Your task to perform on an android device: What is the recent news? Image 0: 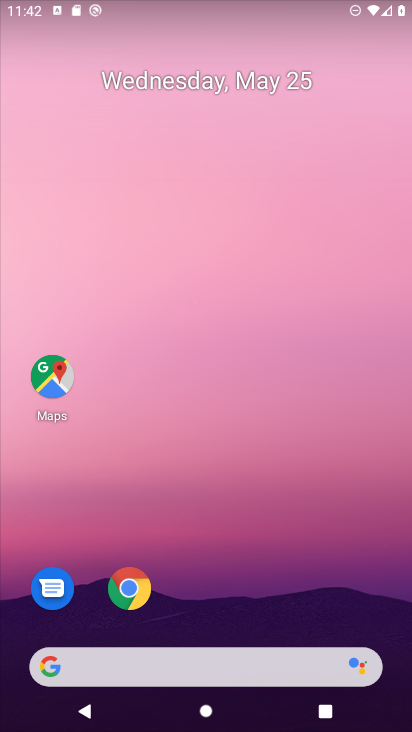
Step 0: press home button
Your task to perform on an android device: What is the recent news? Image 1: 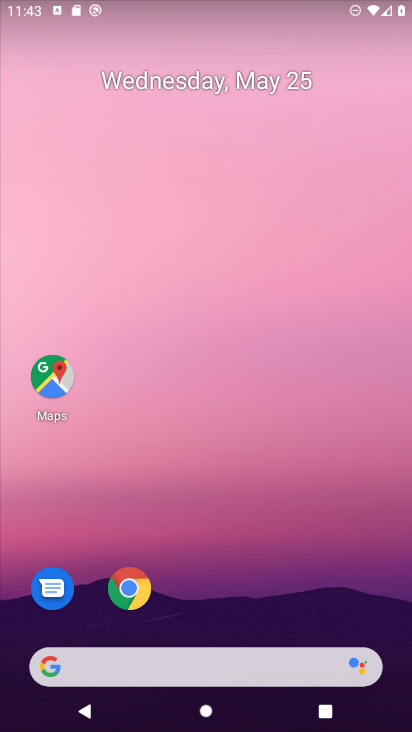
Step 1: click (187, 676)
Your task to perform on an android device: What is the recent news? Image 2: 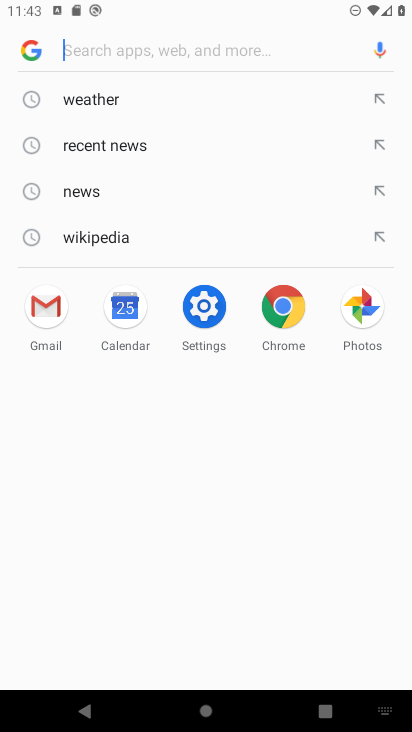
Step 2: click (130, 189)
Your task to perform on an android device: What is the recent news? Image 3: 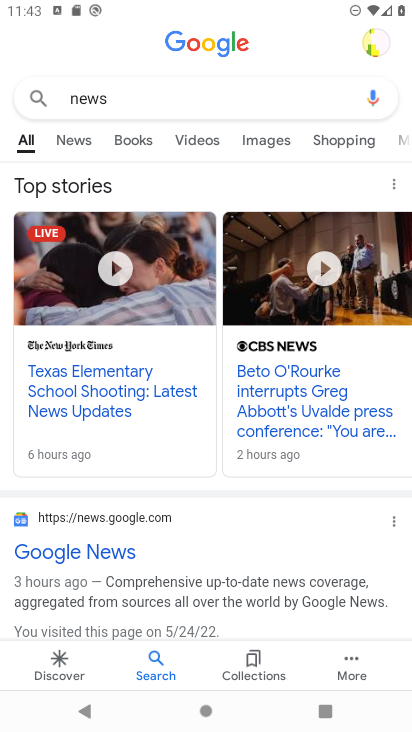
Step 3: task complete